Your task to perform on an android device: turn off location Image 0: 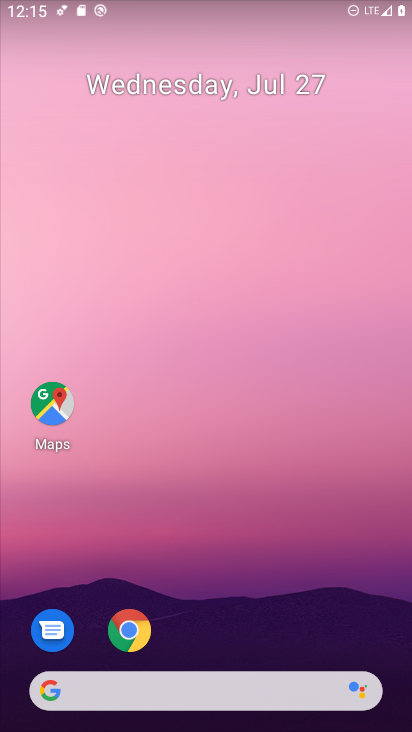
Step 0: drag from (386, 636) to (336, 189)
Your task to perform on an android device: turn off location Image 1: 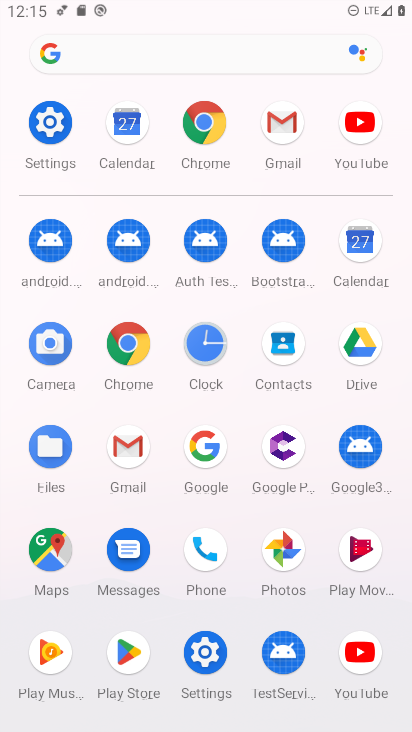
Step 1: click (206, 655)
Your task to perform on an android device: turn off location Image 2: 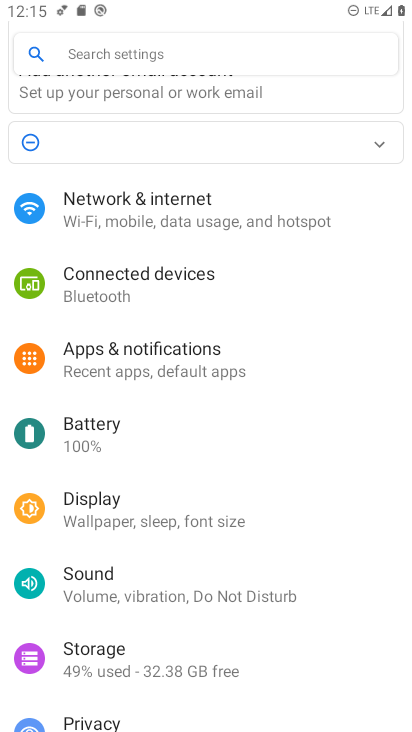
Step 2: drag from (330, 665) to (329, 311)
Your task to perform on an android device: turn off location Image 3: 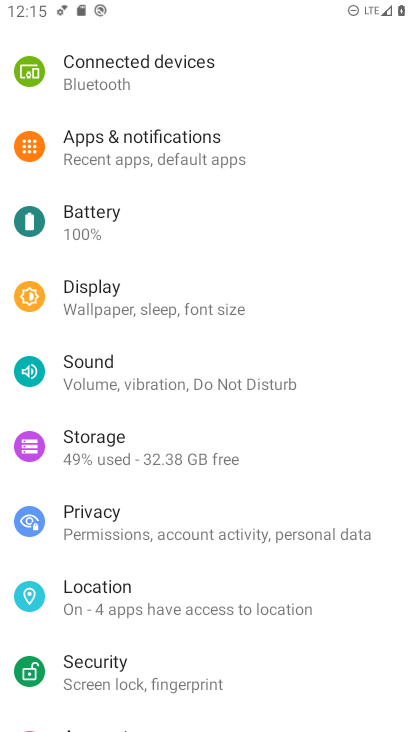
Step 3: drag from (297, 648) to (304, 334)
Your task to perform on an android device: turn off location Image 4: 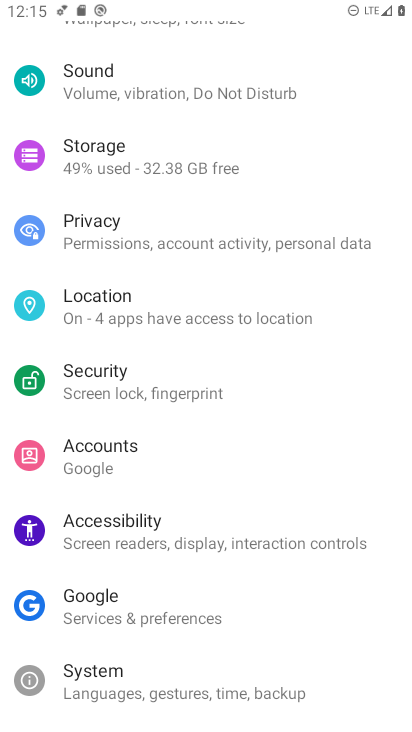
Step 4: click (91, 293)
Your task to perform on an android device: turn off location Image 5: 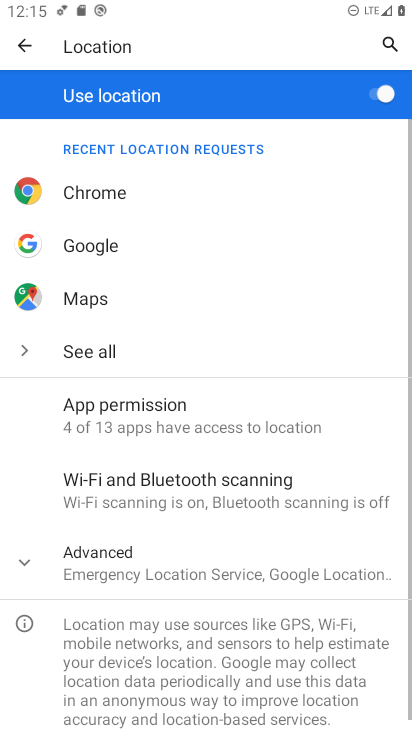
Step 5: click (374, 99)
Your task to perform on an android device: turn off location Image 6: 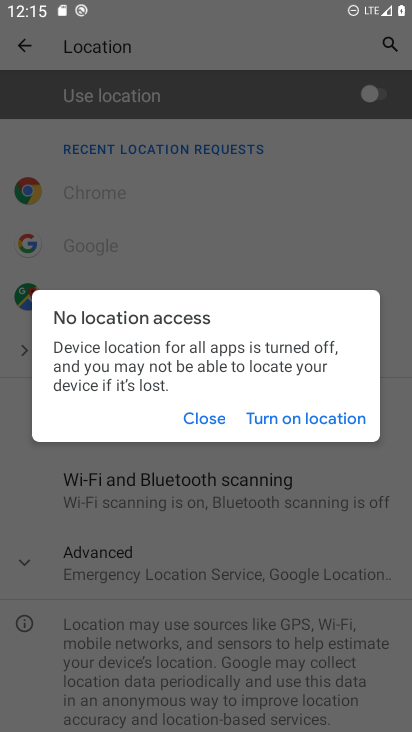
Step 6: click (195, 416)
Your task to perform on an android device: turn off location Image 7: 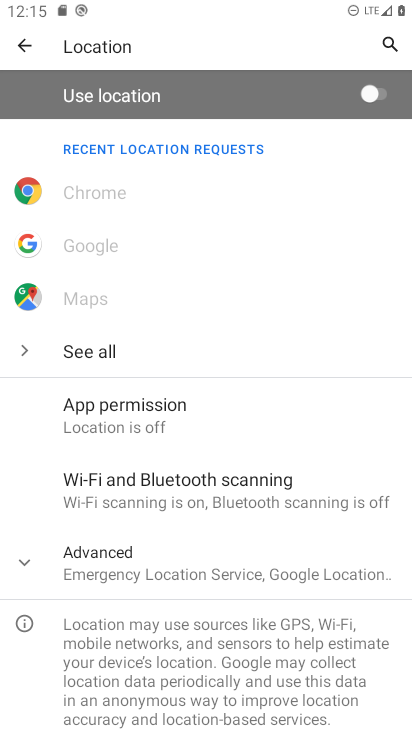
Step 7: task complete